Your task to perform on an android device: Go to sound settings Image 0: 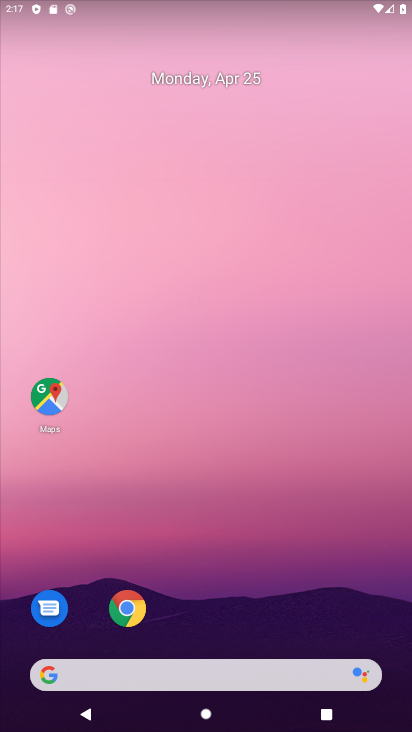
Step 0: drag from (356, 607) to (367, 86)
Your task to perform on an android device: Go to sound settings Image 1: 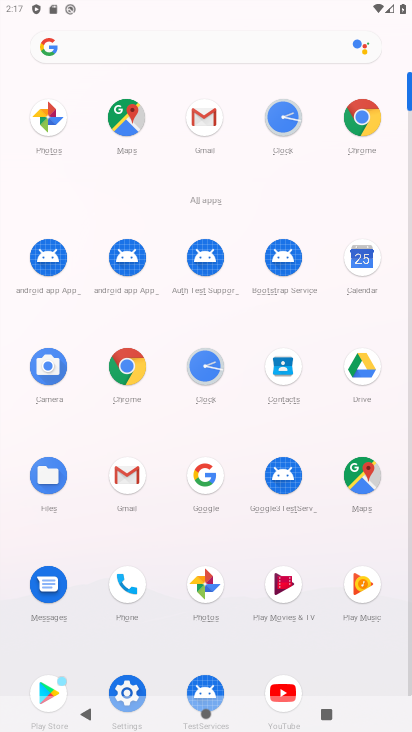
Step 1: drag from (324, 629) to (322, 459)
Your task to perform on an android device: Go to sound settings Image 2: 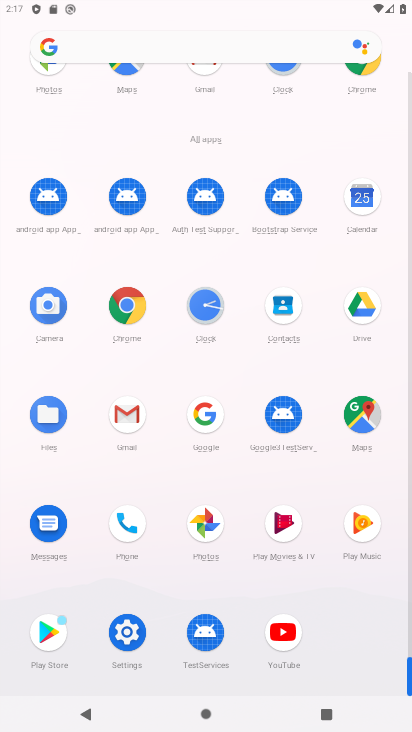
Step 2: click (138, 627)
Your task to perform on an android device: Go to sound settings Image 3: 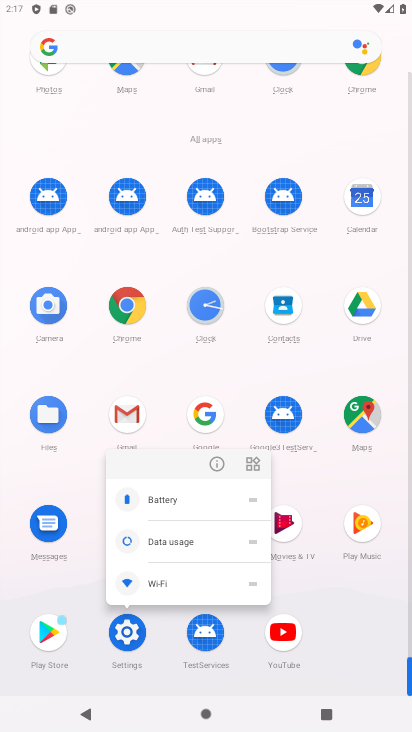
Step 3: click (138, 645)
Your task to perform on an android device: Go to sound settings Image 4: 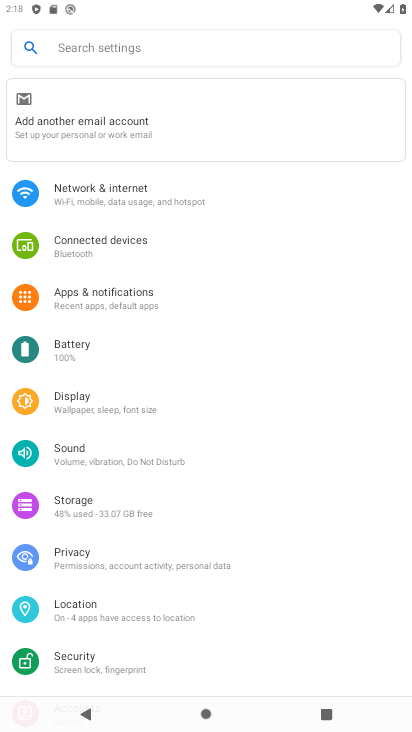
Step 4: click (143, 462)
Your task to perform on an android device: Go to sound settings Image 5: 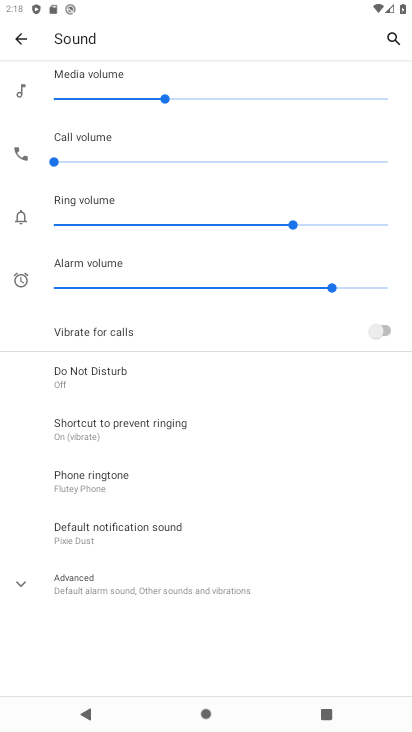
Step 5: task complete